Your task to perform on an android device: Show me recent news Image 0: 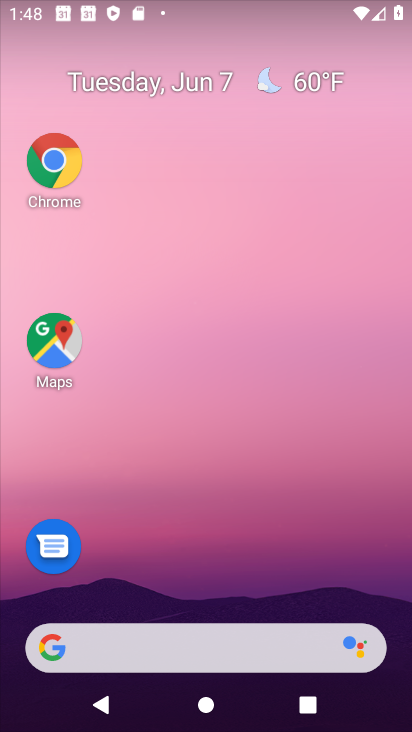
Step 0: drag from (177, 588) to (264, 7)
Your task to perform on an android device: Show me recent news Image 1: 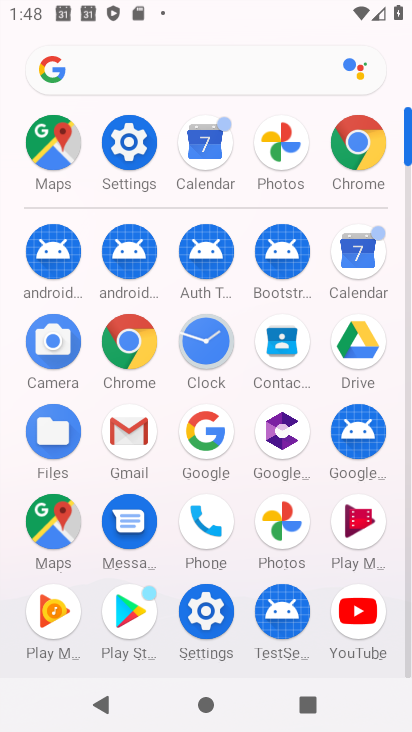
Step 1: click (121, 71)
Your task to perform on an android device: Show me recent news Image 2: 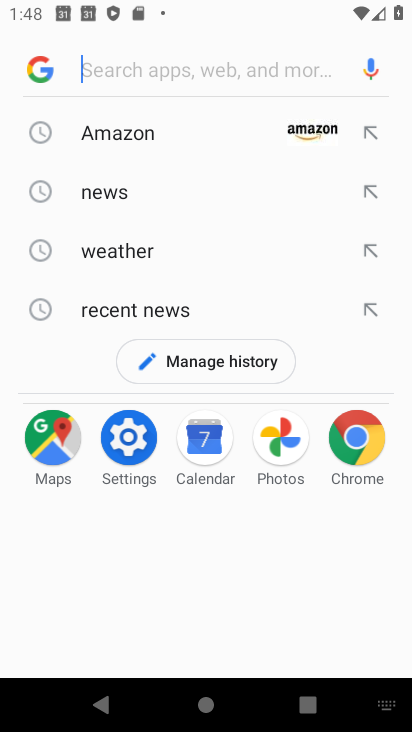
Step 2: click (164, 303)
Your task to perform on an android device: Show me recent news Image 3: 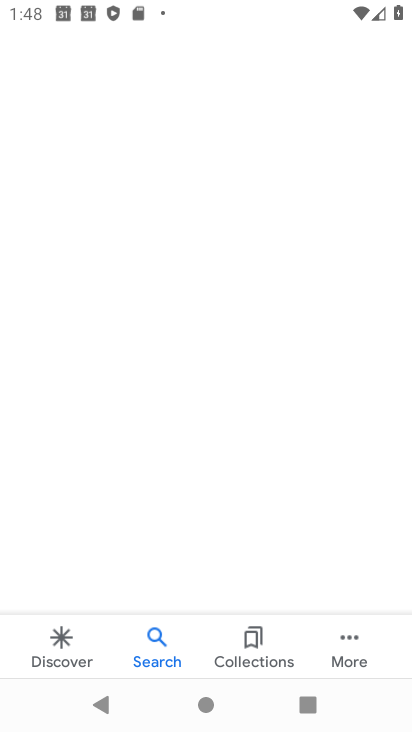
Step 3: drag from (216, 386) to (255, 189)
Your task to perform on an android device: Show me recent news Image 4: 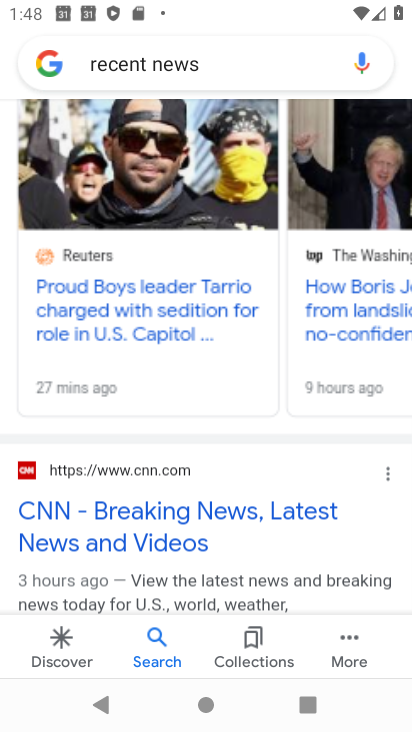
Step 4: drag from (247, 426) to (300, 670)
Your task to perform on an android device: Show me recent news Image 5: 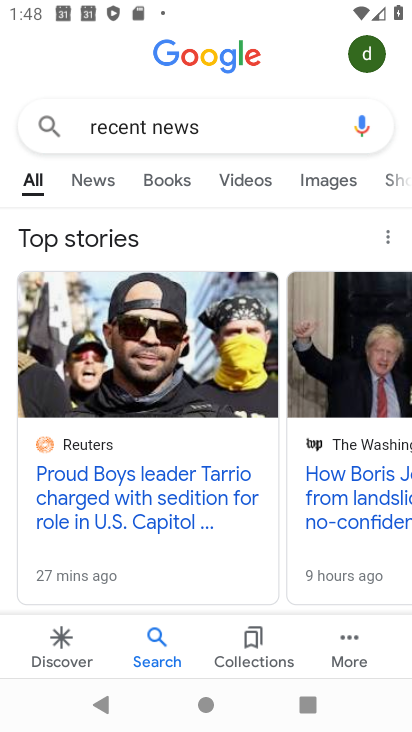
Step 5: drag from (270, 569) to (271, 310)
Your task to perform on an android device: Show me recent news Image 6: 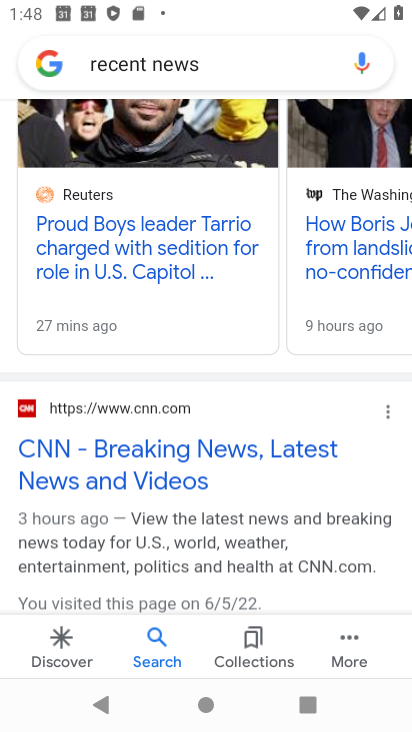
Step 6: drag from (268, 564) to (286, 210)
Your task to perform on an android device: Show me recent news Image 7: 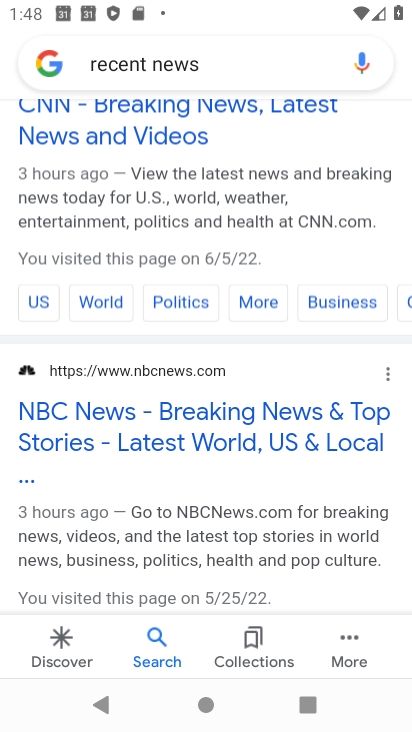
Step 7: drag from (186, 219) to (247, 396)
Your task to perform on an android device: Show me recent news Image 8: 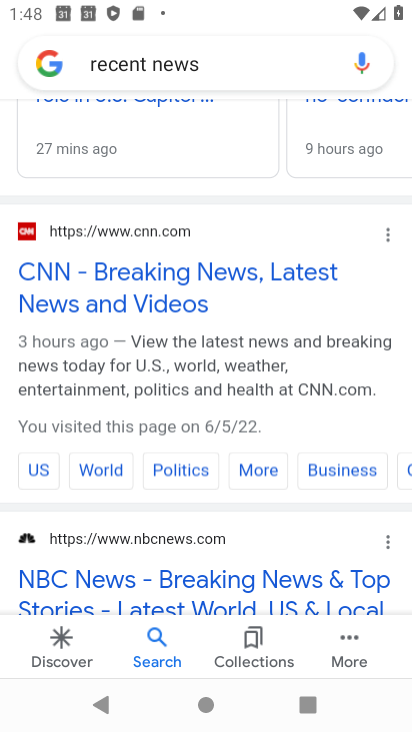
Step 8: click (171, 310)
Your task to perform on an android device: Show me recent news Image 9: 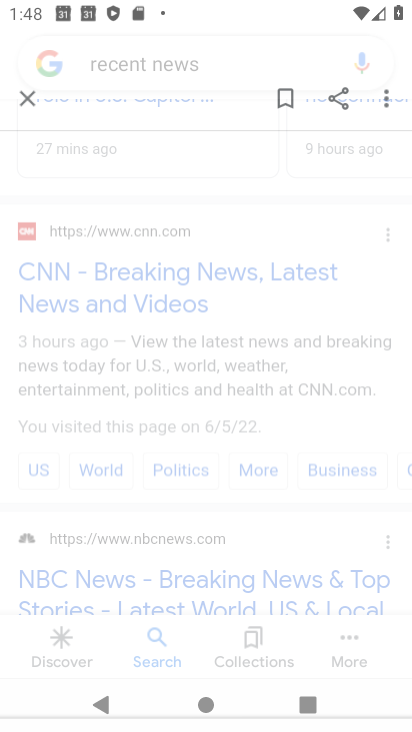
Step 9: task complete